Your task to perform on an android device: toggle notifications settings in the gmail app Image 0: 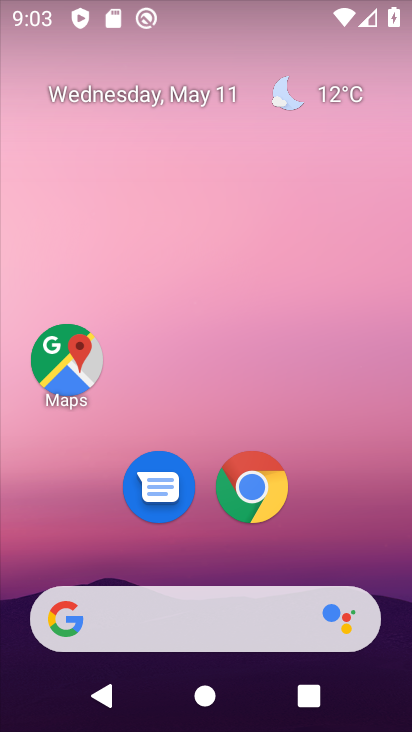
Step 0: drag from (332, 511) to (281, 39)
Your task to perform on an android device: toggle notifications settings in the gmail app Image 1: 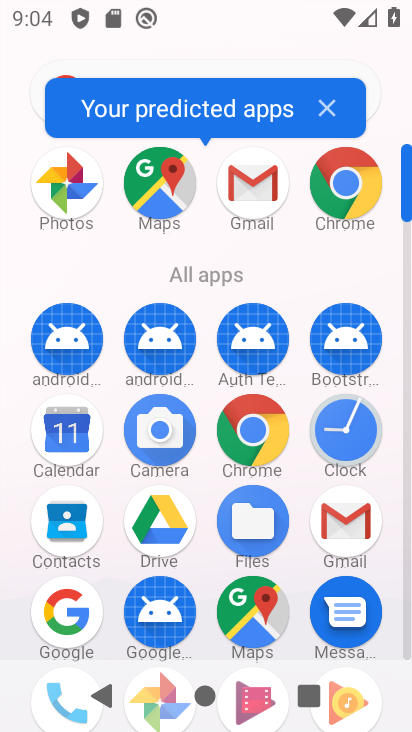
Step 1: click (251, 187)
Your task to perform on an android device: toggle notifications settings in the gmail app Image 2: 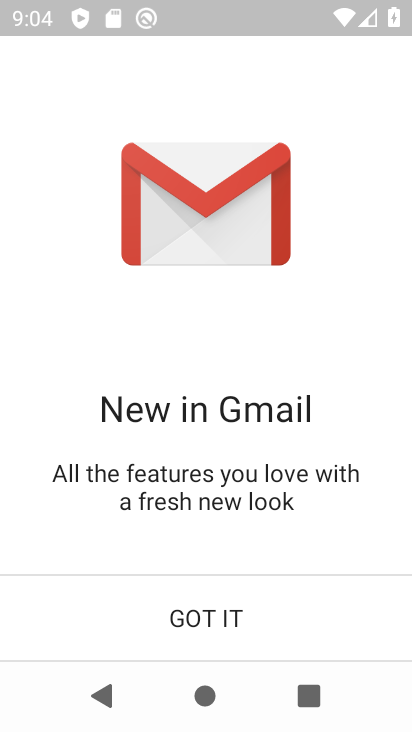
Step 2: click (212, 613)
Your task to perform on an android device: toggle notifications settings in the gmail app Image 3: 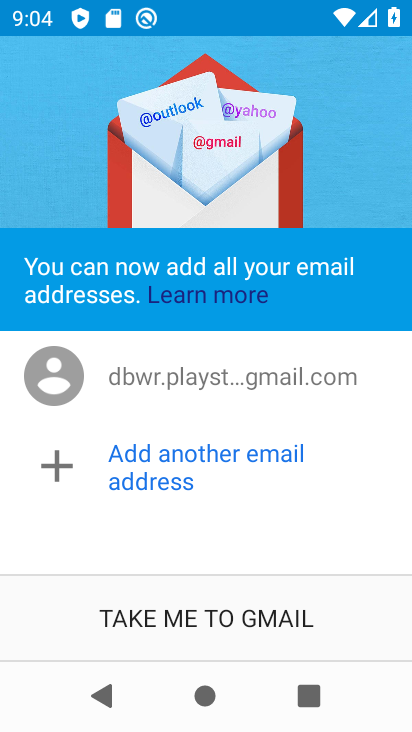
Step 3: click (212, 613)
Your task to perform on an android device: toggle notifications settings in the gmail app Image 4: 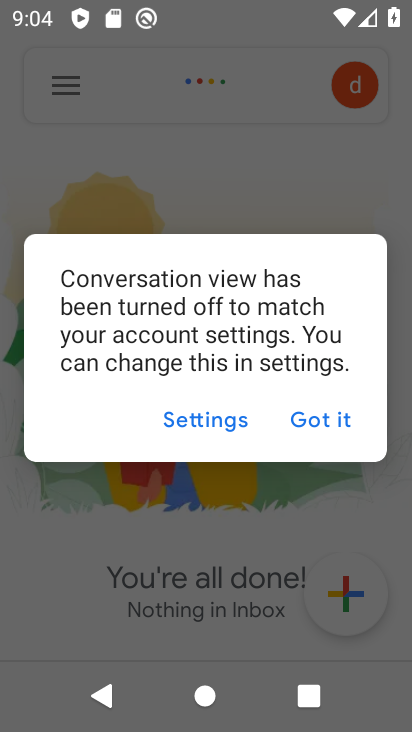
Step 4: click (317, 421)
Your task to perform on an android device: toggle notifications settings in the gmail app Image 5: 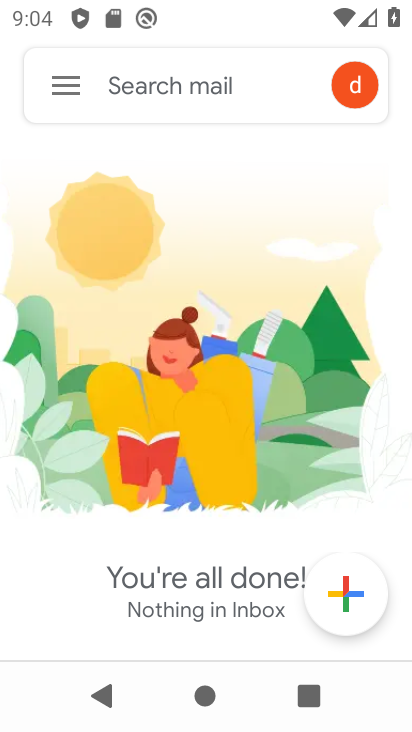
Step 5: click (63, 79)
Your task to perform on an android device: toggle notifications settings in the gmail app Image 6: 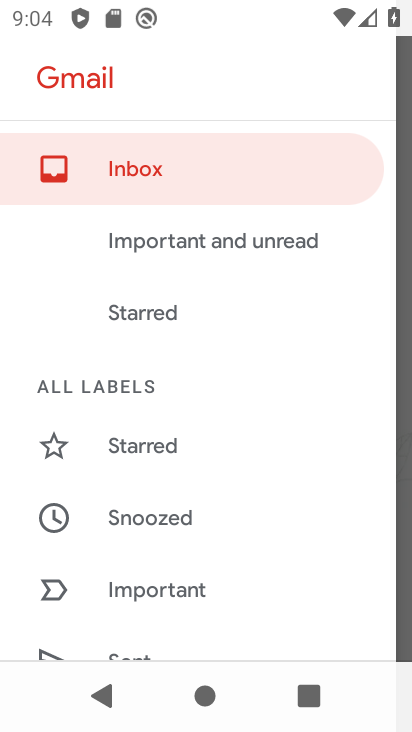
Step 6: drag from (139, 559) to (214, 406)
Your task to perform on an android device: toggle notifications settings in the gmail app Image 7: 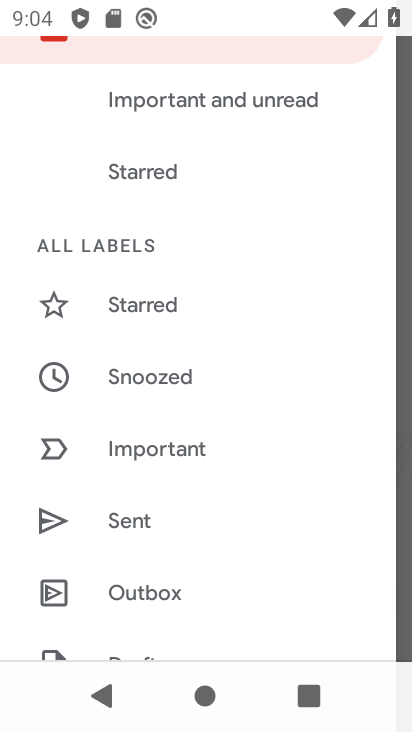
Step 7: drag from (136, 549) to (220, 401)
Your task to perform on an android device: toggle notifications settings in the gmail app Image 8: 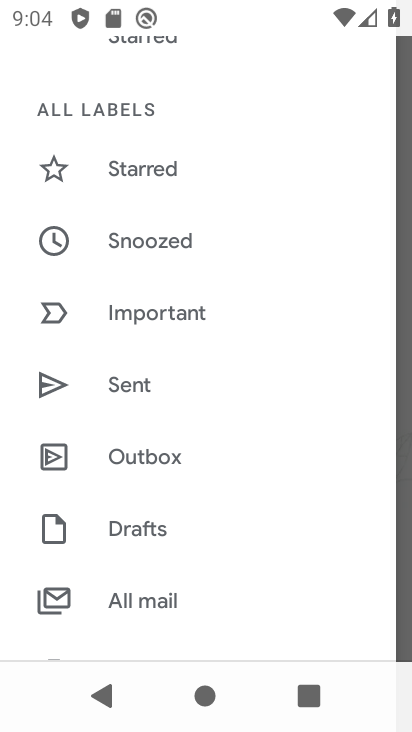
Step 8: drag from (139, 550) to (223, 436)
Your task to perform on an android device: toggle notifications settings in the gmail app Image 9: 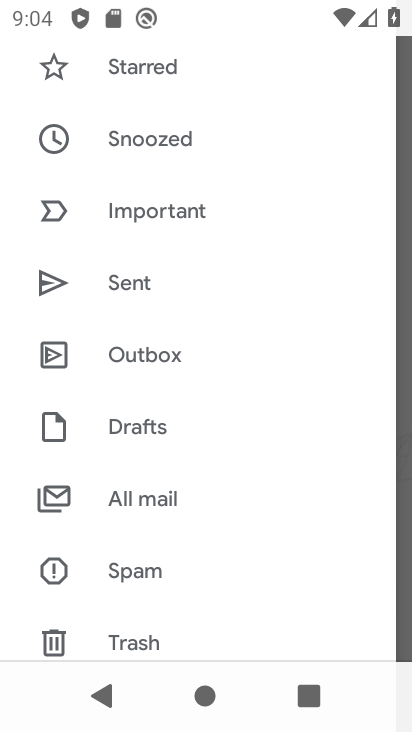
Step 9: drag from (142, 534) to (226, 424)
Your task to perform on an android device: toggle notifications settings in the gmail app Image 10: 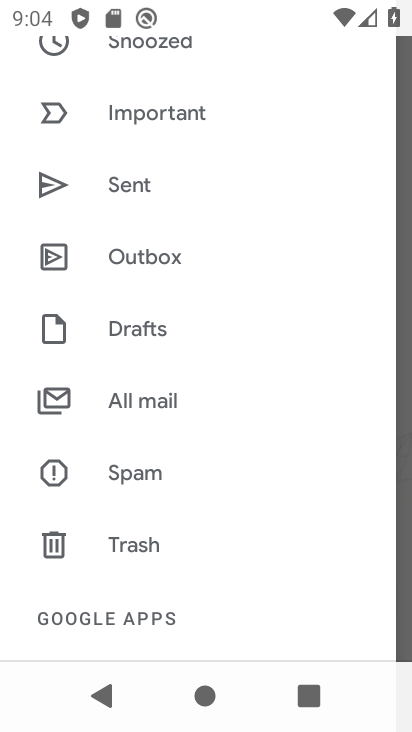
Step 10: drag from (118, 570) to (231, 407)
Your task to perform on an android device: toggle notifications settings in the gmail app Image 11: 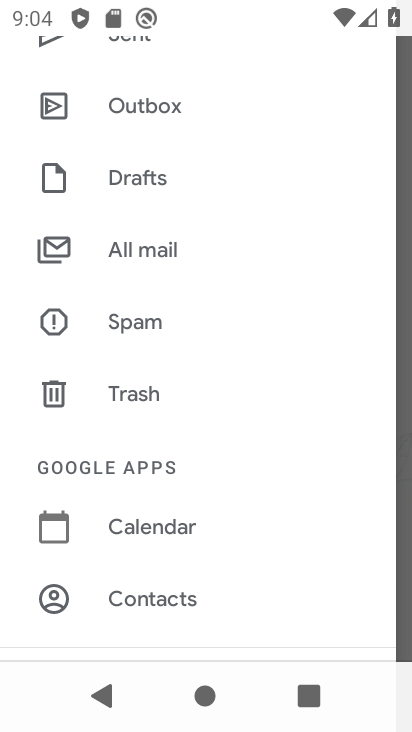
Step 11: drag from (147, 549) to (250, 419)
Your task to perform on an android device: toggle notifications settings in the gmail app Image 12: 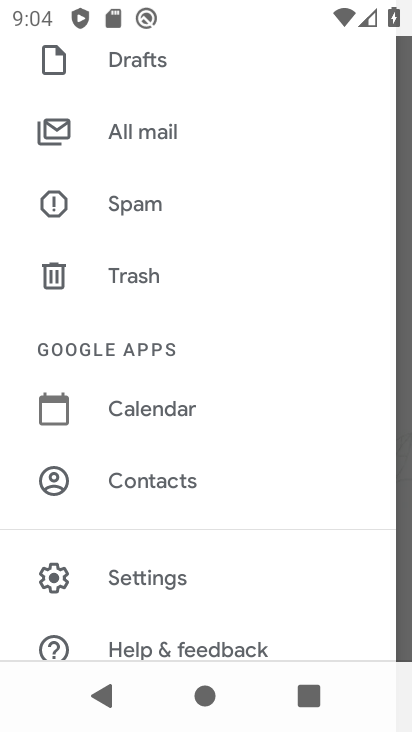
Step 12: click (138, 575)
Your task to perform on an android device: toggle notifications settings in the gmail app Image 13: 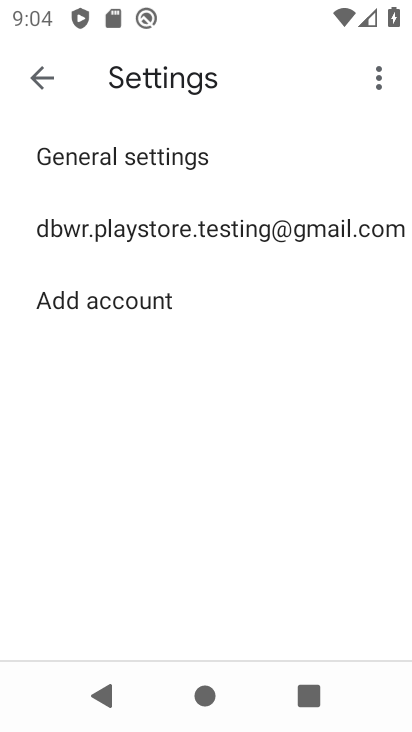
Step 13: click (202, 228)
Your task to perform on an android device: toggle notifications settings in the gmail app Image 14: 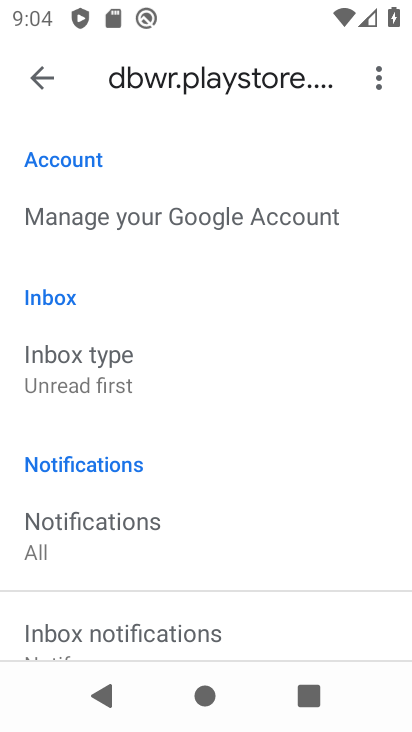
Step 14: drag from (163, 504) to (225, 392)
Your task to perform on an android device: toggle notifications settings in the gmail app Image 15: 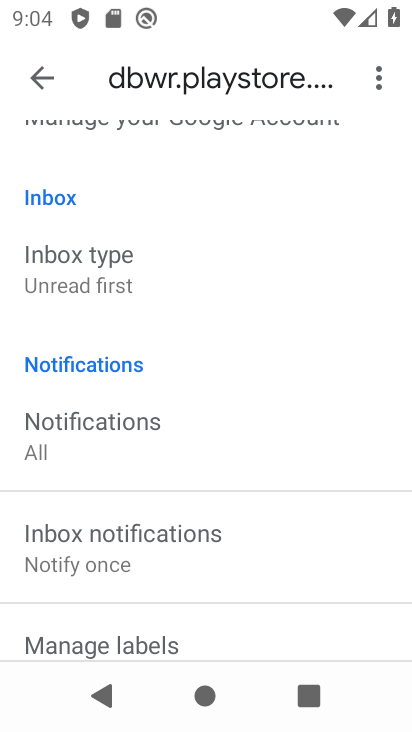
Step 15: drag from (186, 557) to (246, 433)
Your task to perform on an android device: toggle notifications settings in the gmail app Image 16: 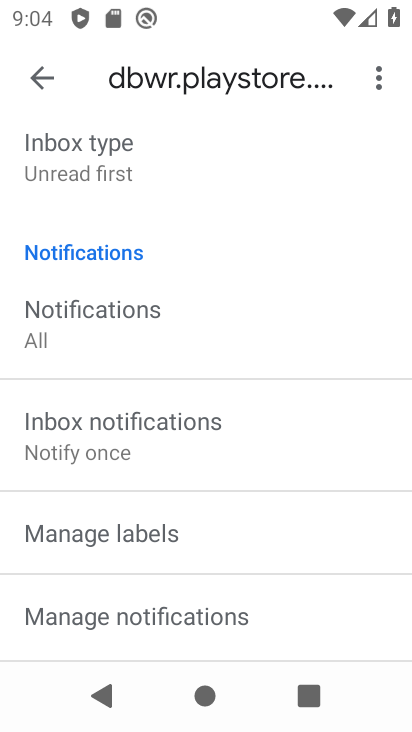
Step 16: drag from (181, 578) to (266, 440)
Your task to perform on an android device: toggle notifications settings in the gmail app Image 17: 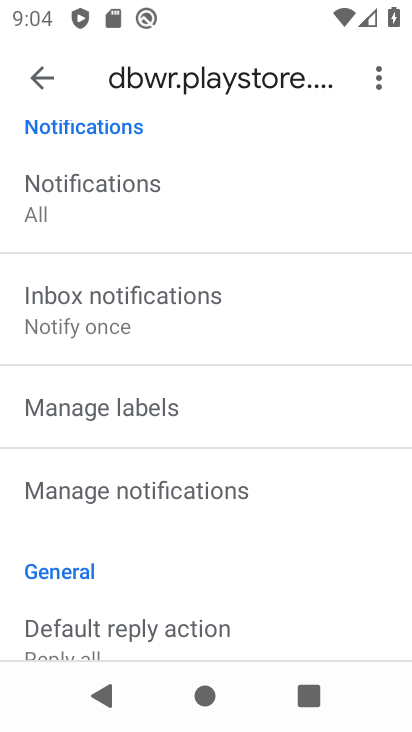
Step 17: click (207, 485)
Your task to perform on an android device: toggle notifications settings in the gmail app Image 18: 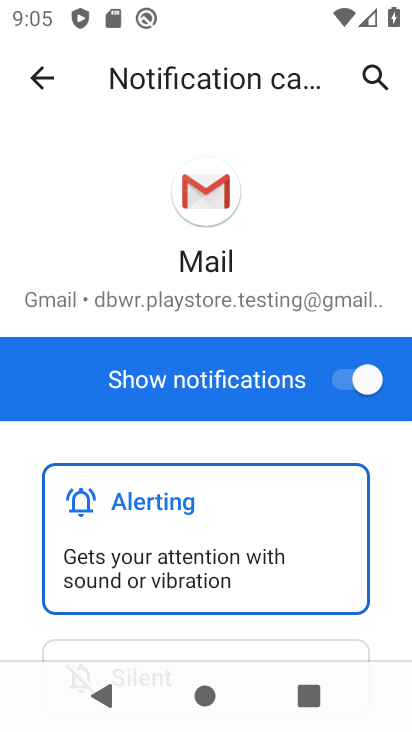
Step 18: click (361, 377)
Your task to perform on an android device: toggle notifications settings in the gmail app Image 19: 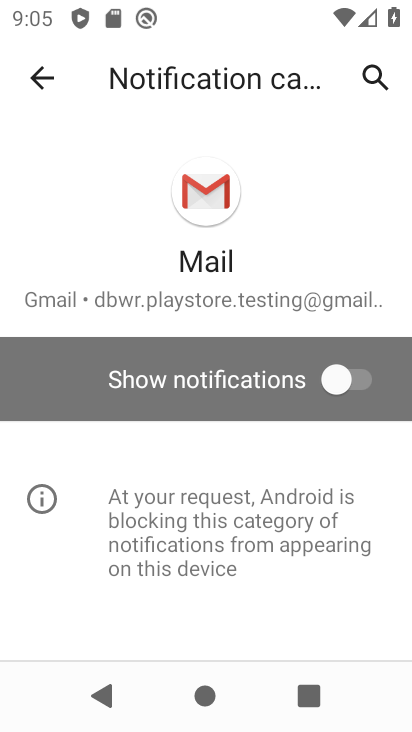
Step 19: task complete